Your task to perform on an android device: Search for razer huntsman on walmart, select the first entry, add it to the cart, then select checkout. Image 0: 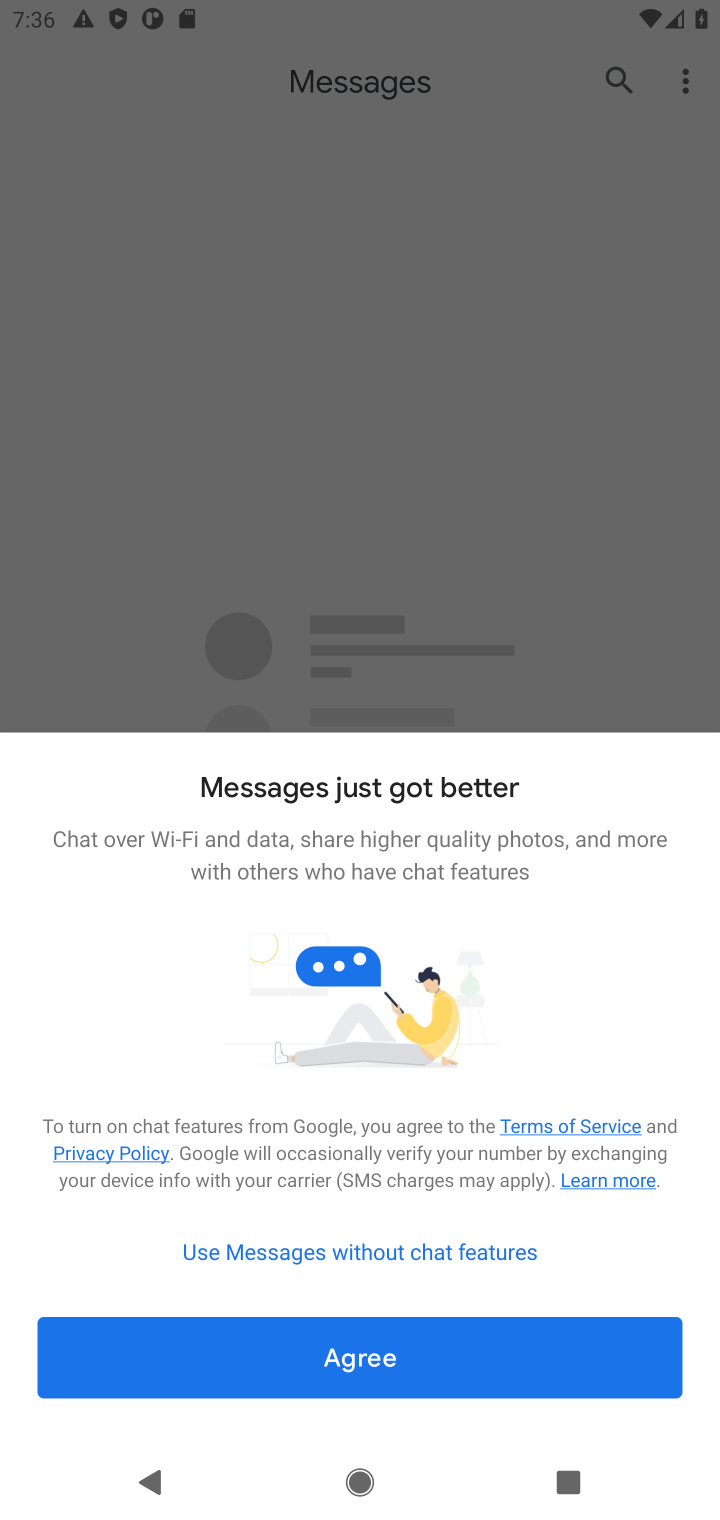
Step 0: press home button
Your task to perform on an android device: Search for razer huntsman on walmart, select the first entry, add it to the cart, then select checkout. Image 1: 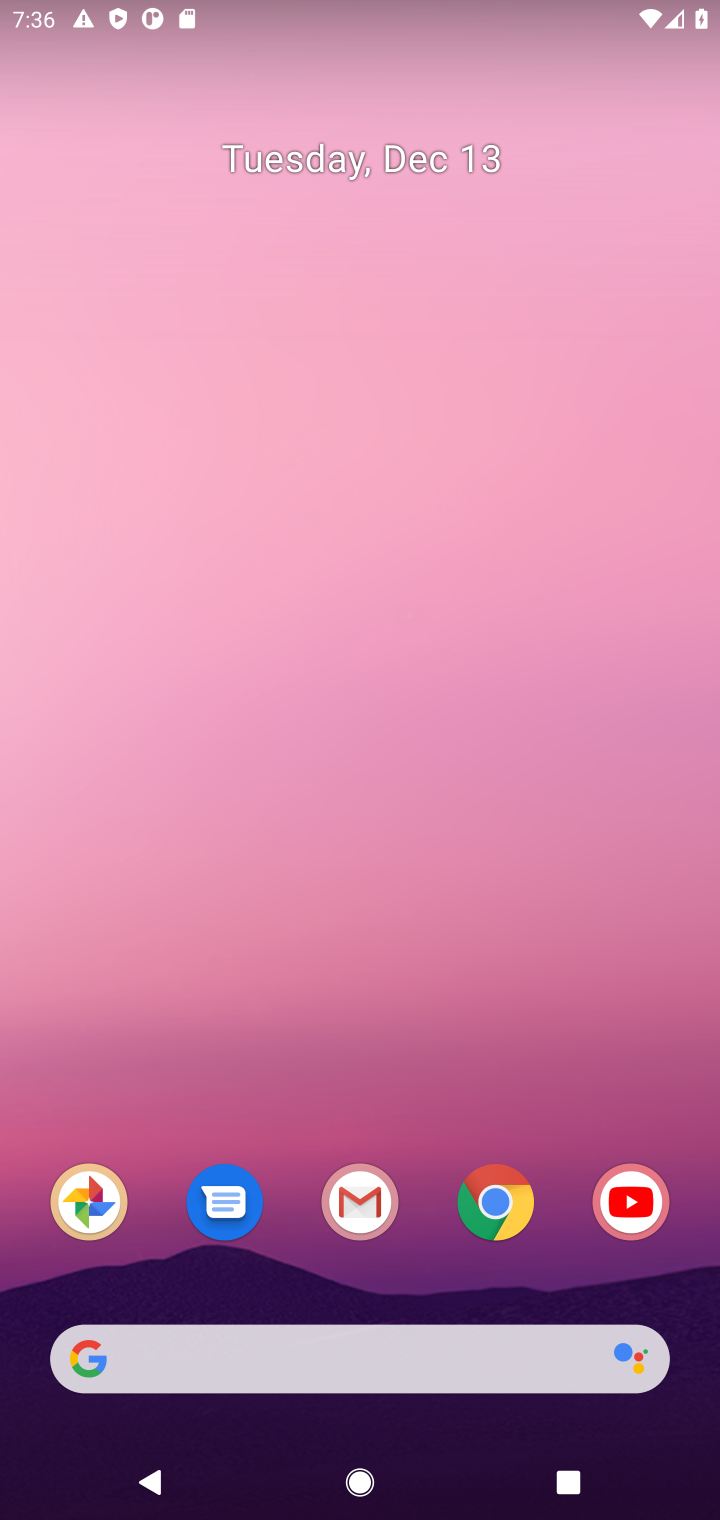
Step 1: click (497, 1222)
Your task to perform on an android device: Search for razer huntsman on walmart, select the first entry, add it to the cart, then select checkout. Image 2: 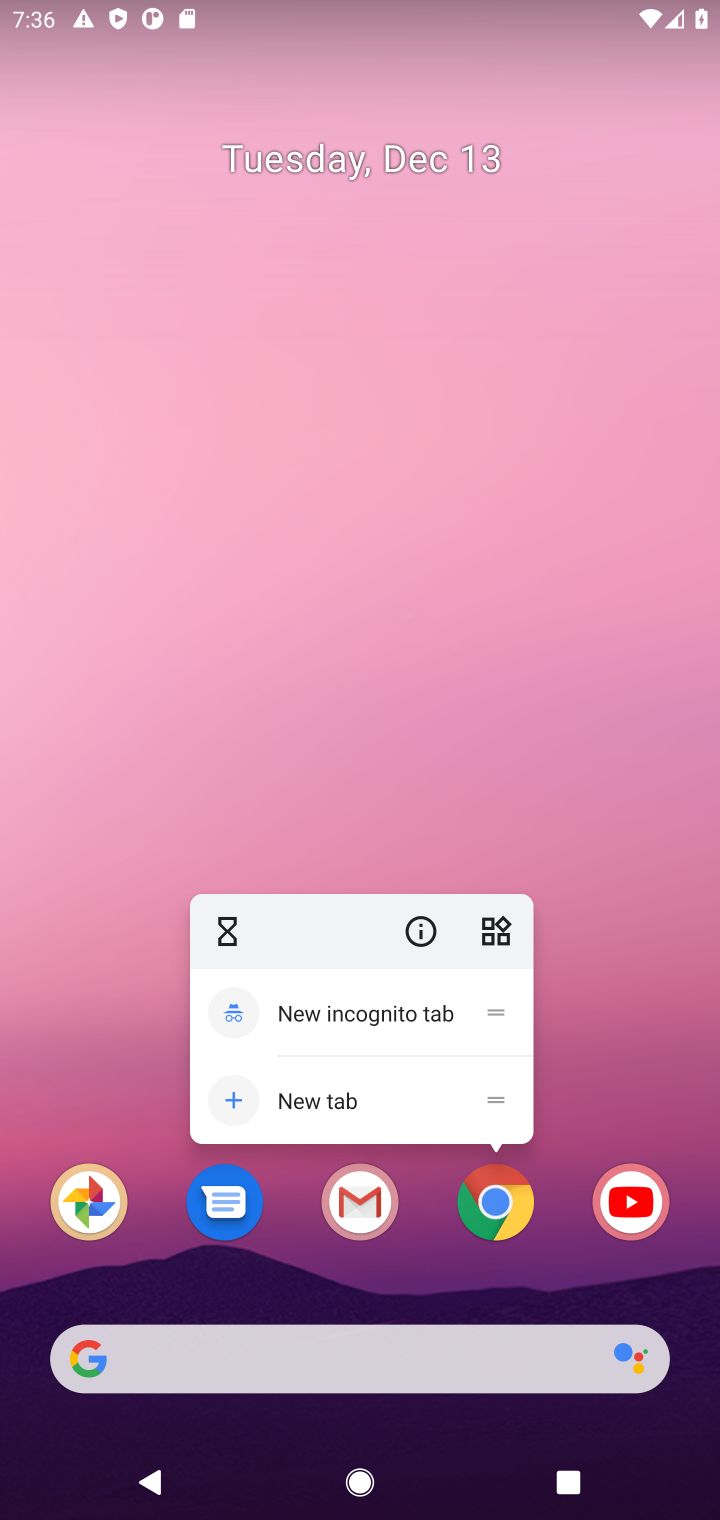
Step 2: click (497, 1222)
Your task to perform on an android device: Search for razer huntsman on walmart, select the first entry, add it to the cart, then select checkout. Image 3: 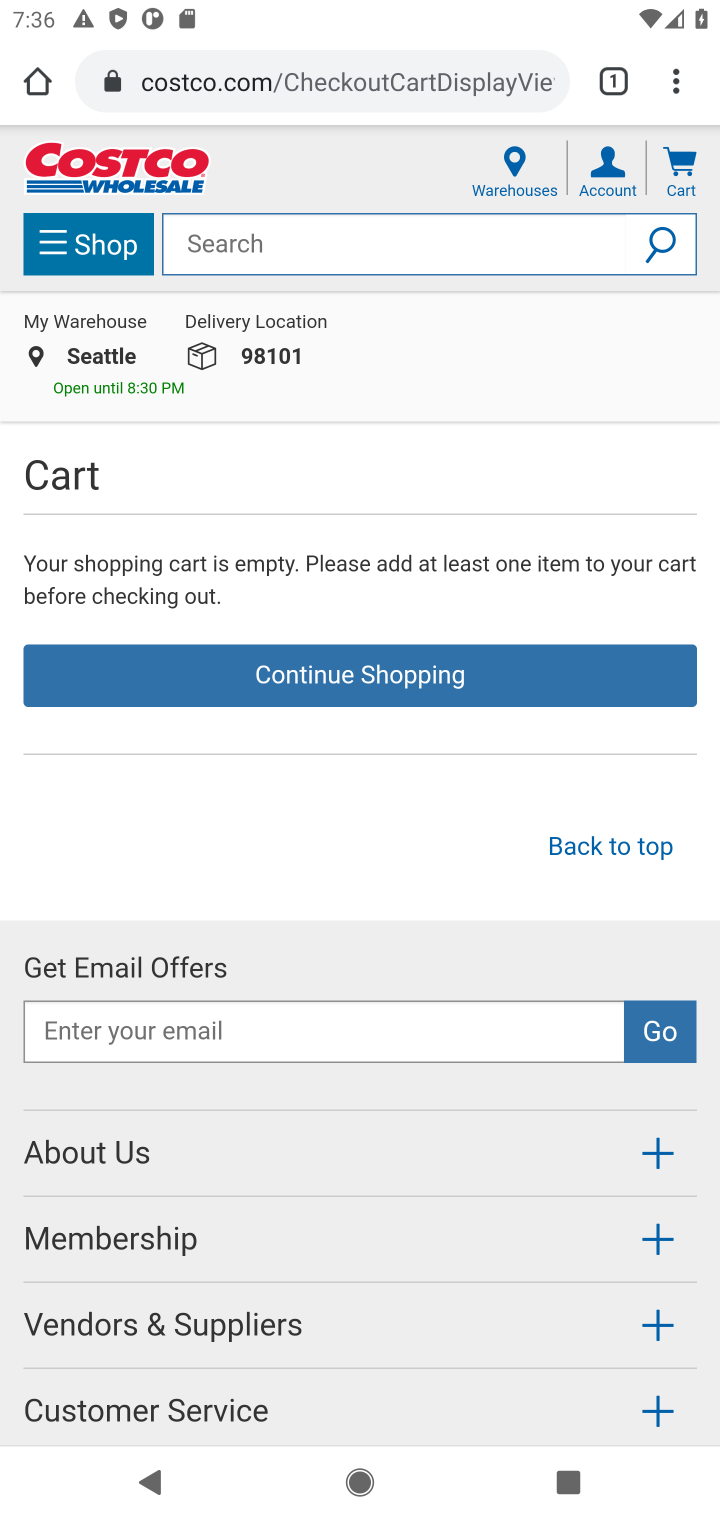
Step 3: click (275, 91)
Your task to perform on an android device: Search for razer huntsman on walmart, select the first entry, add it to the cart, then select checkout. Image 4: 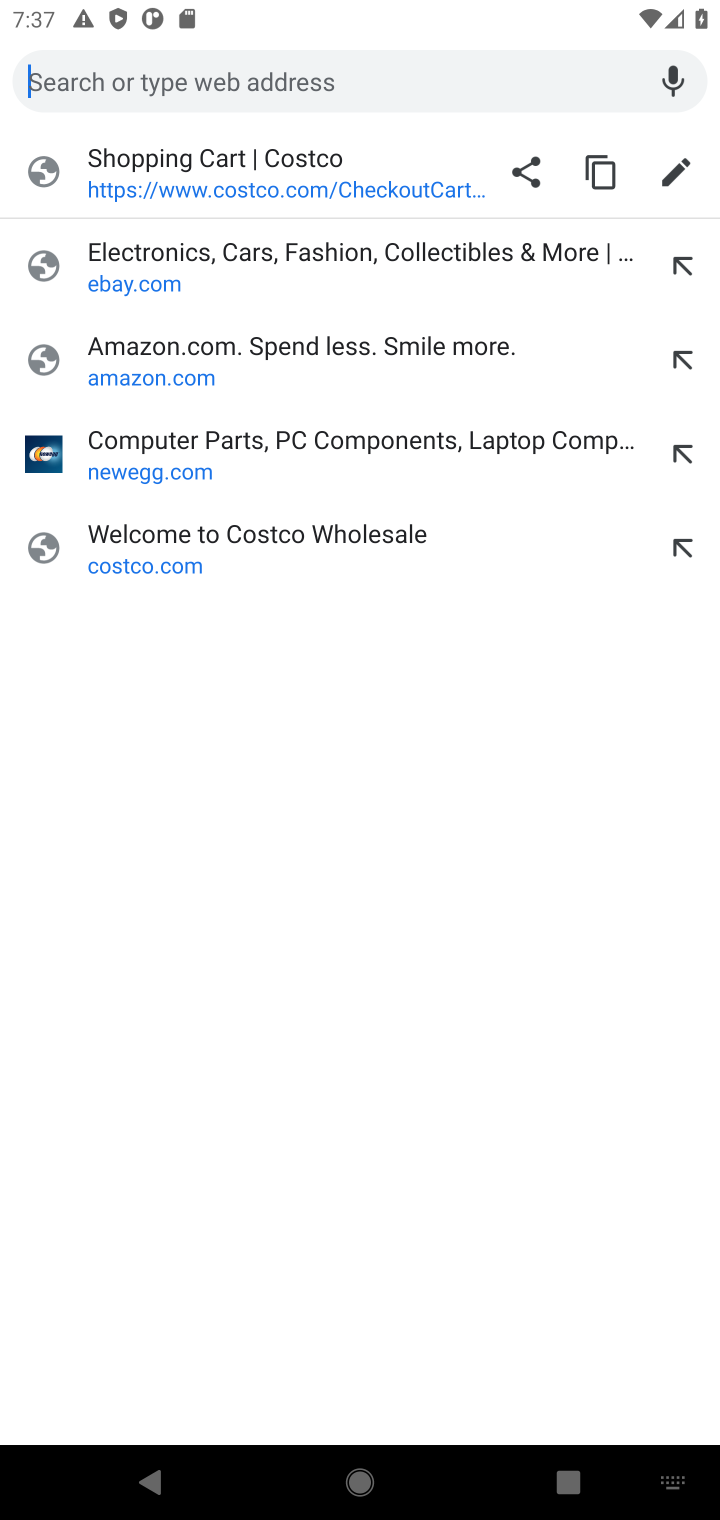
Step 4: type "walmart.com"
Your task to perform on an android device: Search for razer huntsman on walmart, select the first entry, add it to the cart, then select checkout. Image 5: 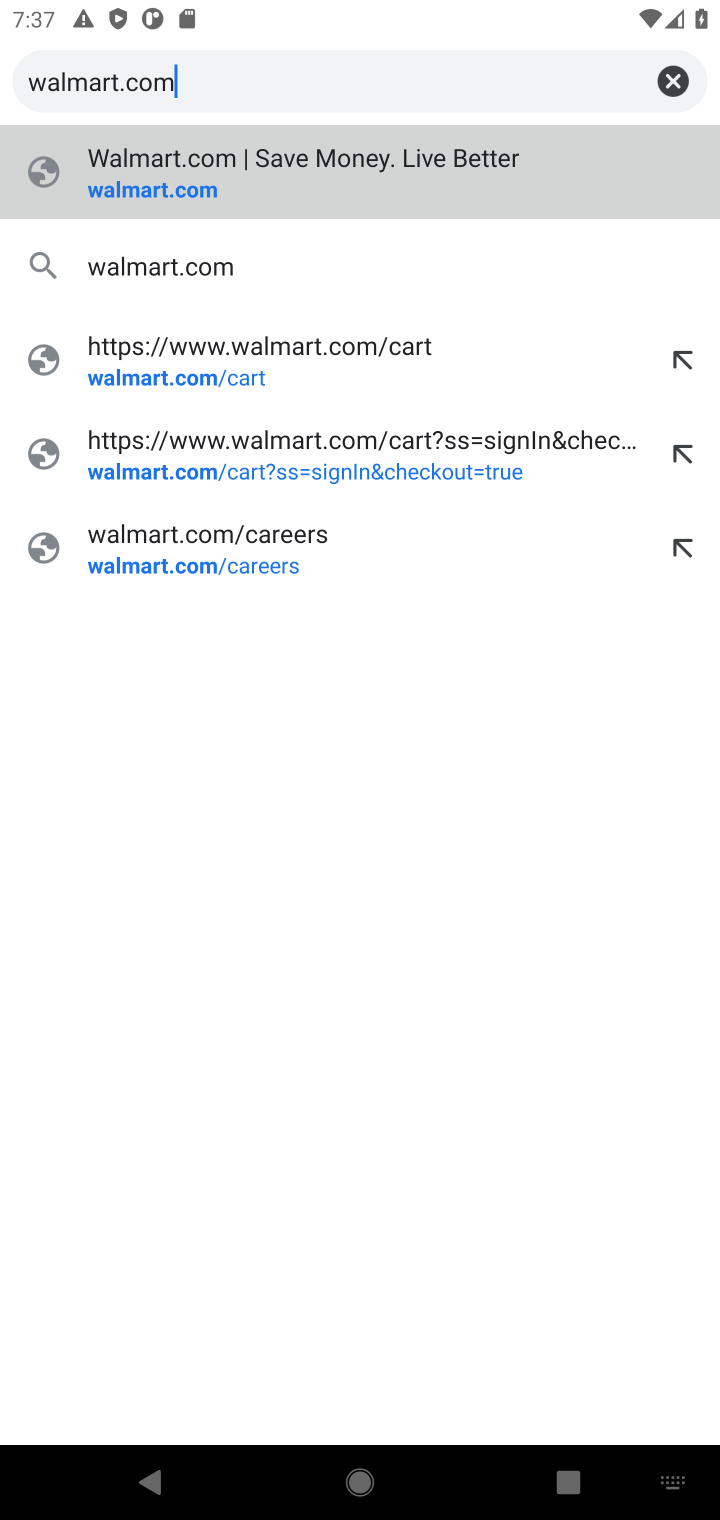
Step 5: click (124, 187)
Your task to perform on an android device: Search for razer huntsman on walmart, select the first entry, add it to the cart, then select checkout. Image 6: 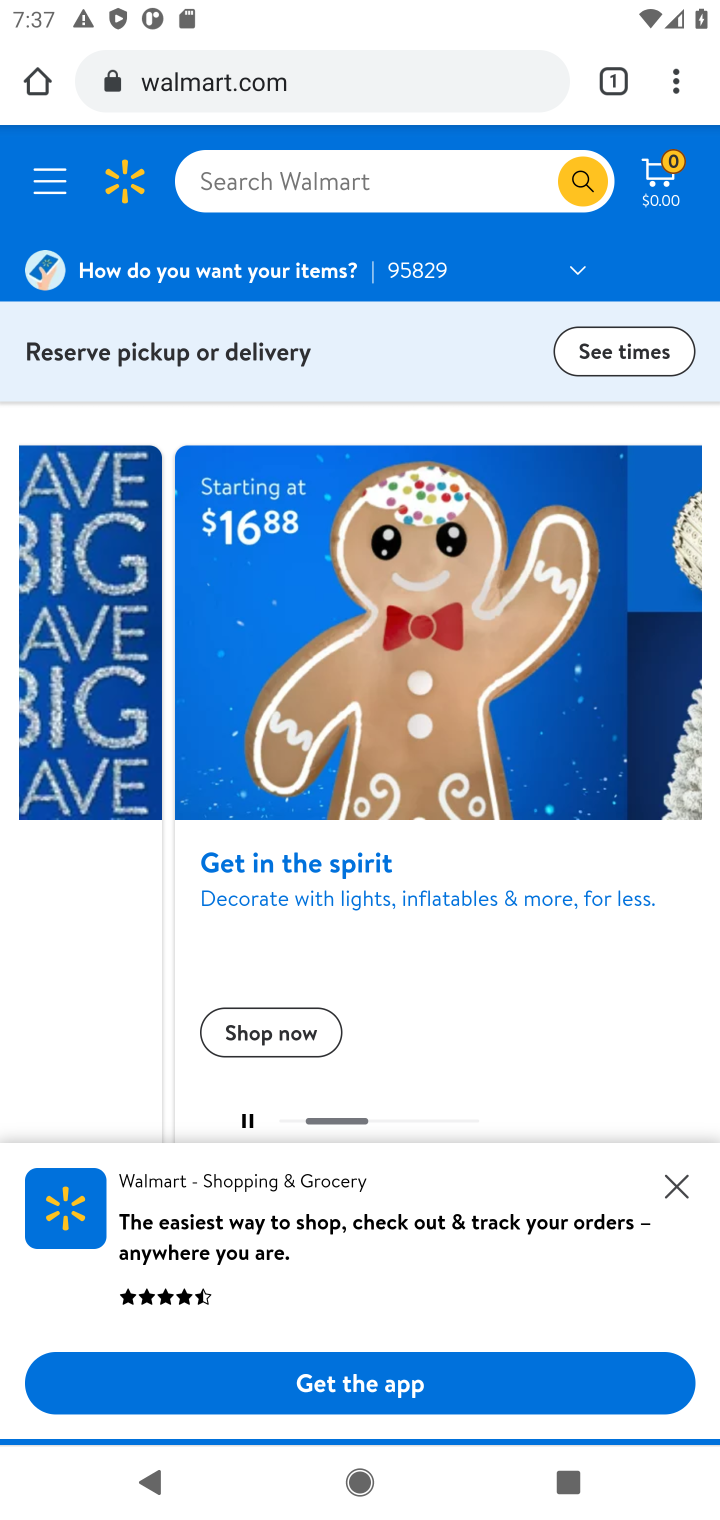
Step 6: click (246, 189)
Your task to perform on an android device: Search for razer huntsman on walmart, select the first entry, add it to the cart, then select checkout. Image 7: 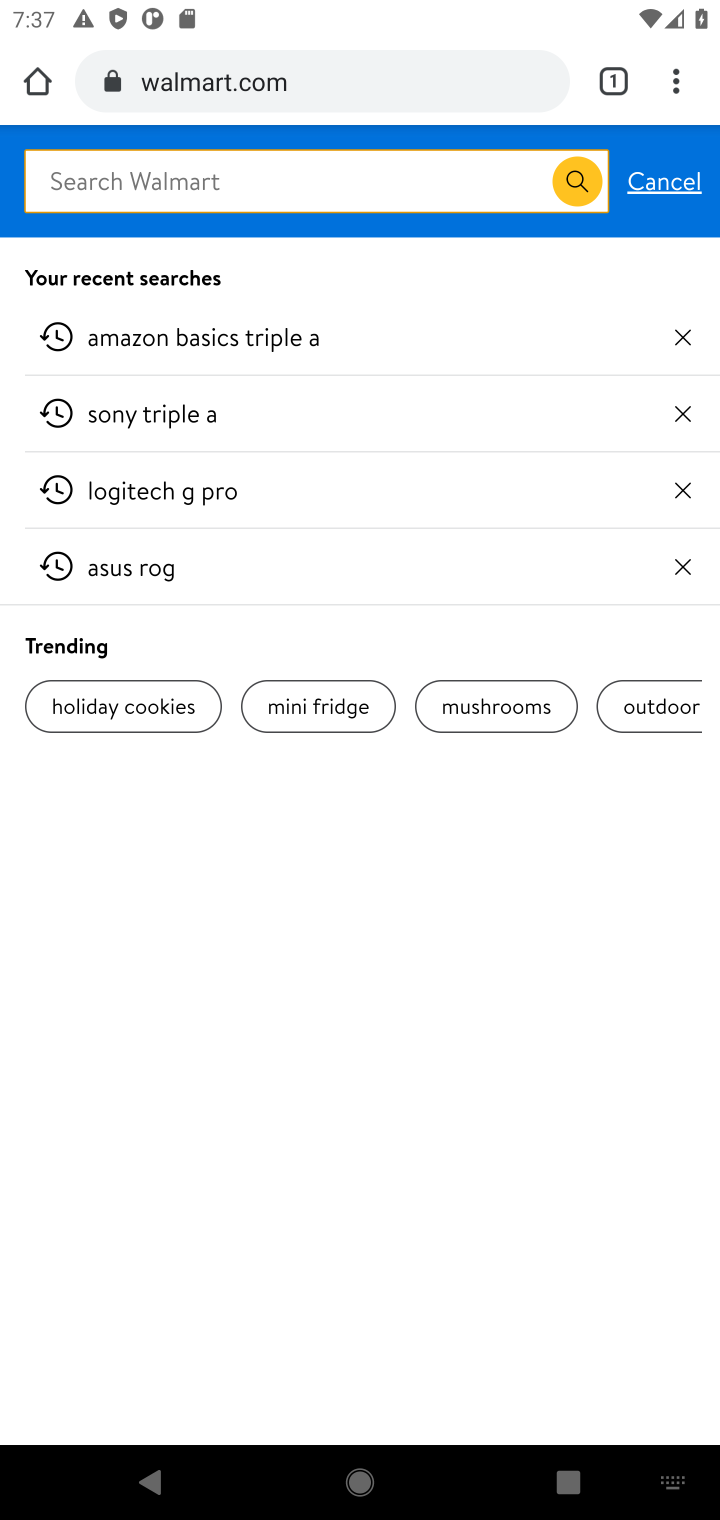
Step 7: type "razer huntsman"
Your task to perform on an android device: Search for razer huntsman on walmart, select the first entry, add it to the cart, then select checkout. Image 8: 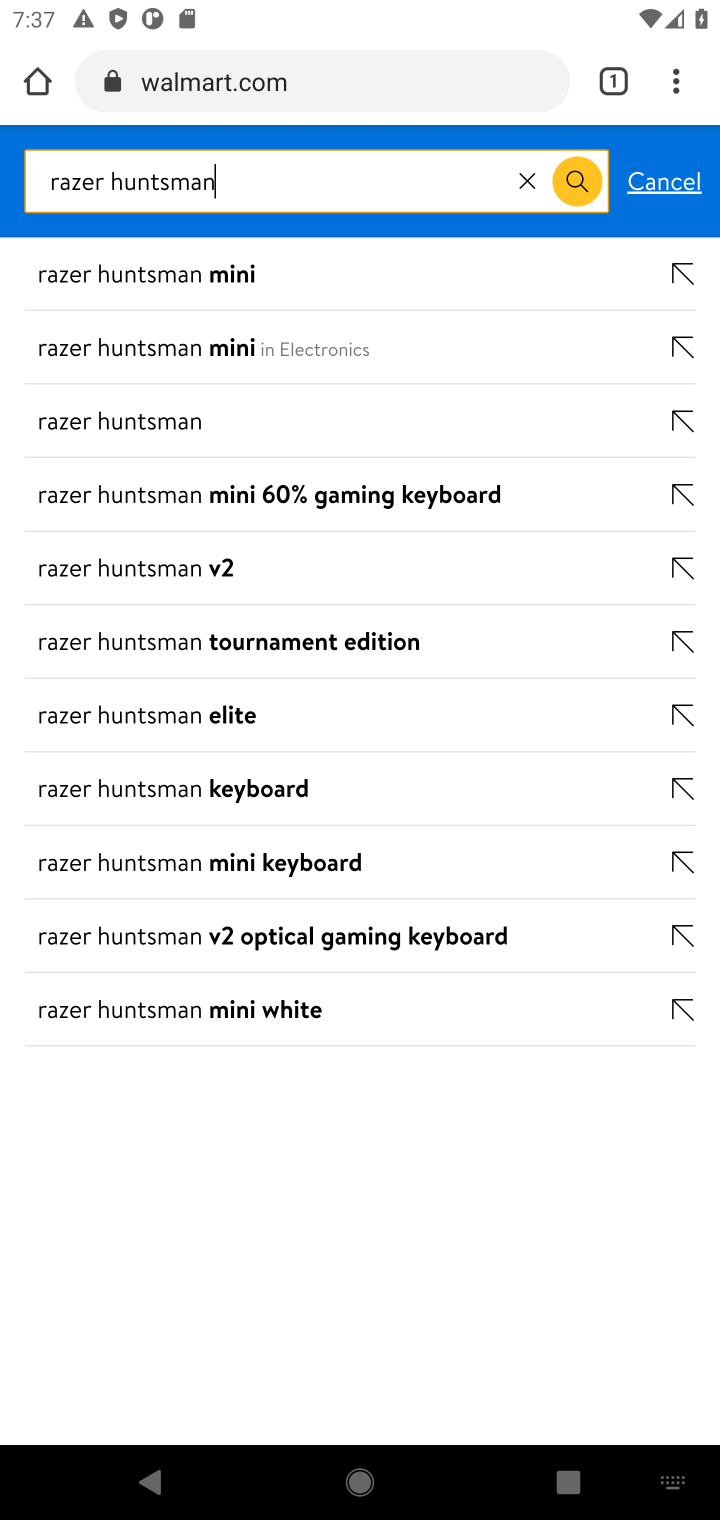
Step 8: click (144, 433)
Your task to perform on an android device: Search for razer huntsman on walmart, select the first entry, add it to the cart, then select checkout. Image 9: 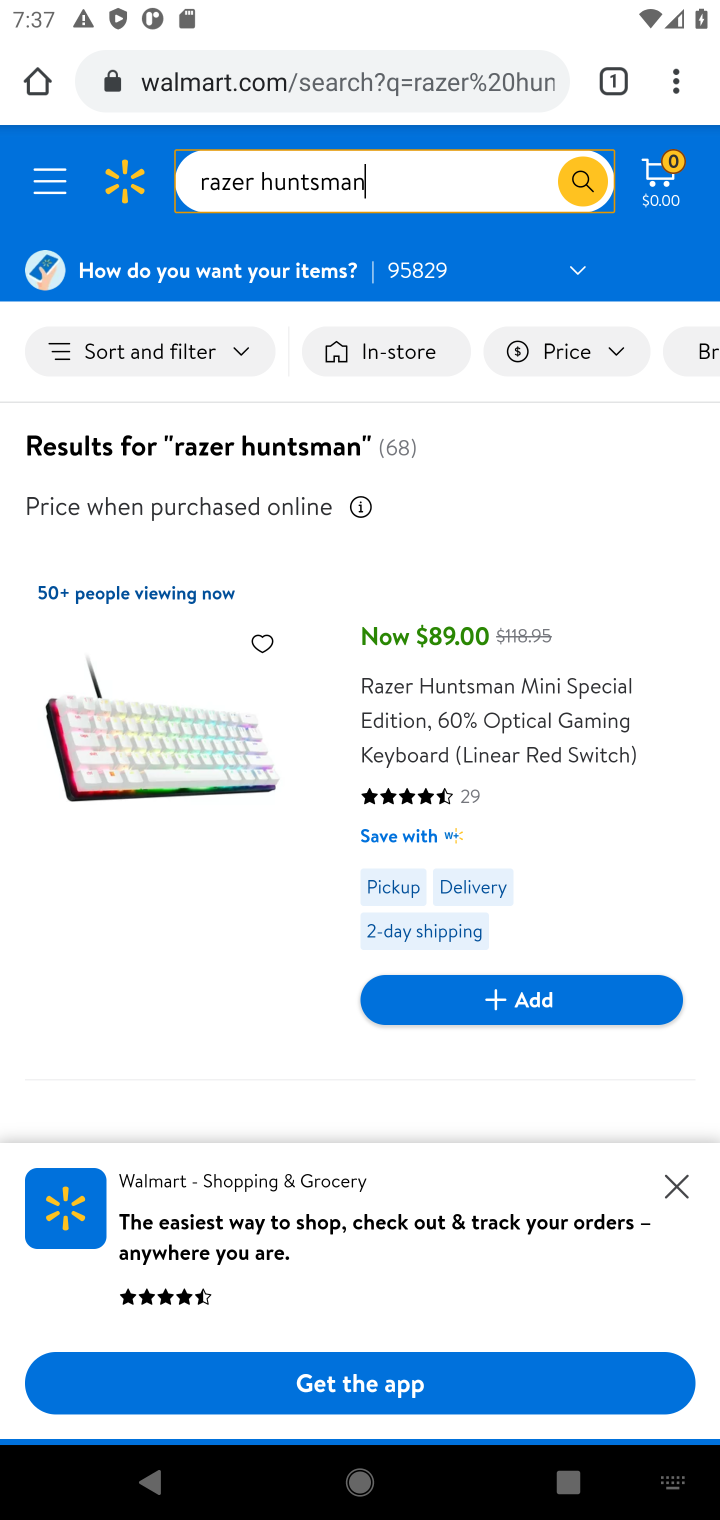
Step 9: click (519, 1014)
Your task to perform on an android device: Search for razer huntsman on walmart, select the first entry, add it to the cart, then select checkout. Image 10: 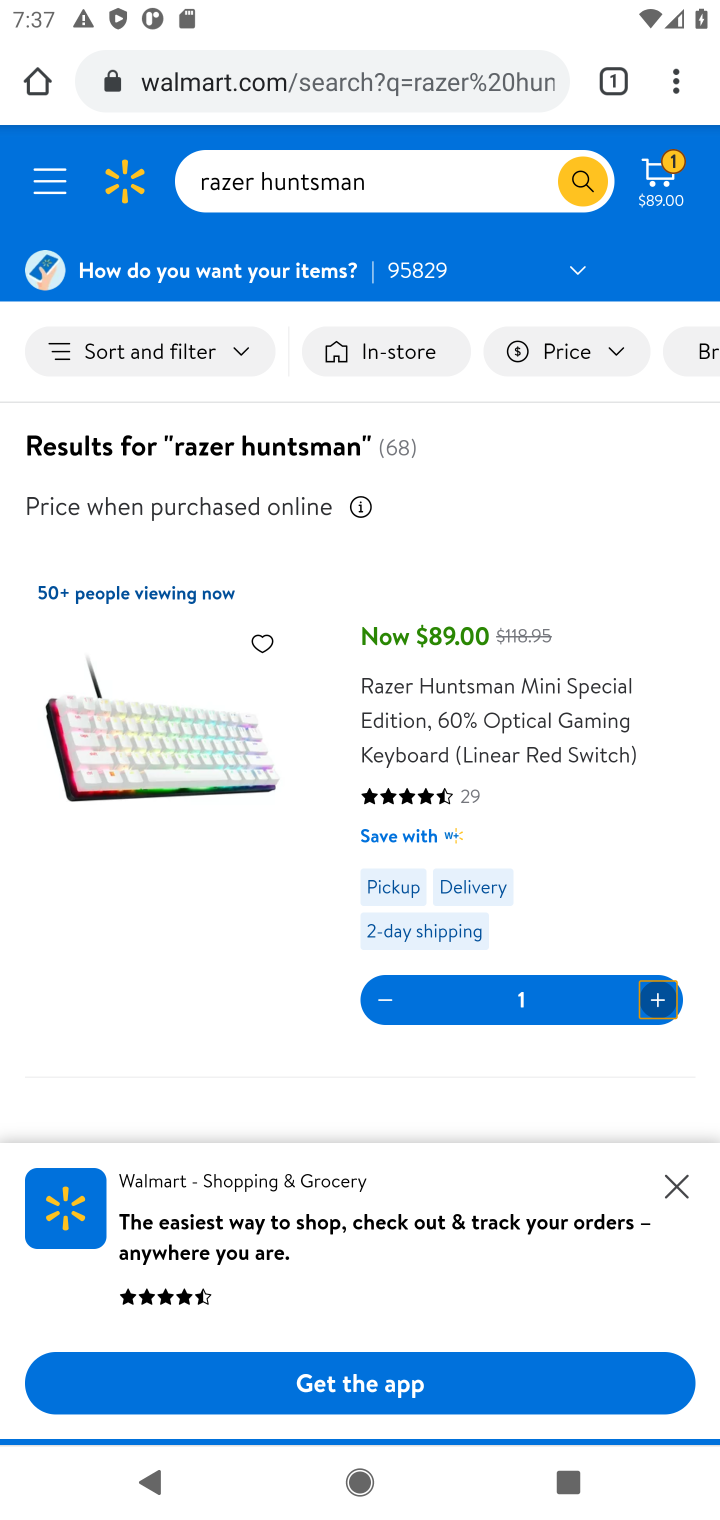
Step 10: click (661, 186)
Your task to perform on an android device: Search for razer huntsman on walmart, select the first entry, add it to the cart, then select checkout. Image 11: 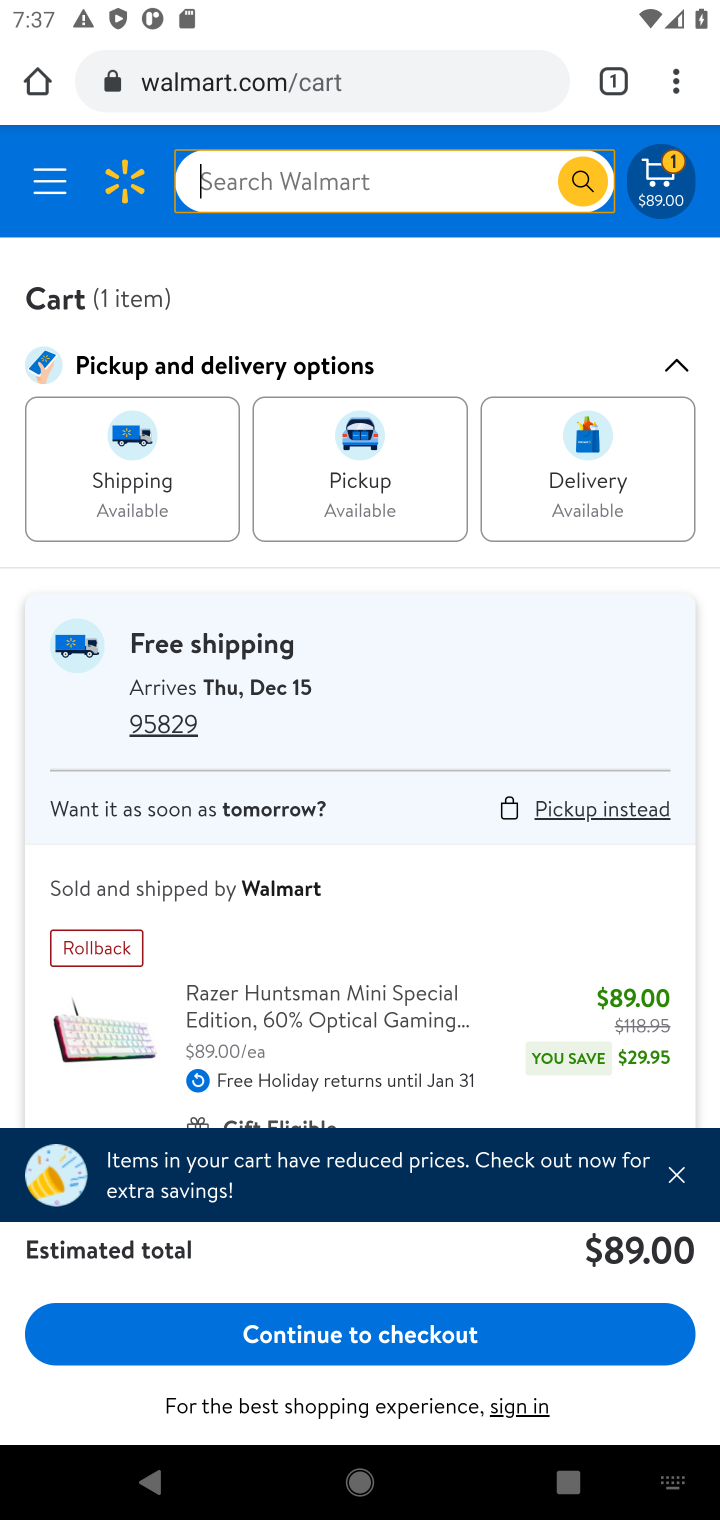
Step 11: click (360, 1340)
Your task to perform on an android device: Search for razer huntsman on walmart, select the first entry, add it to the cart, then select checkout. Image 12: 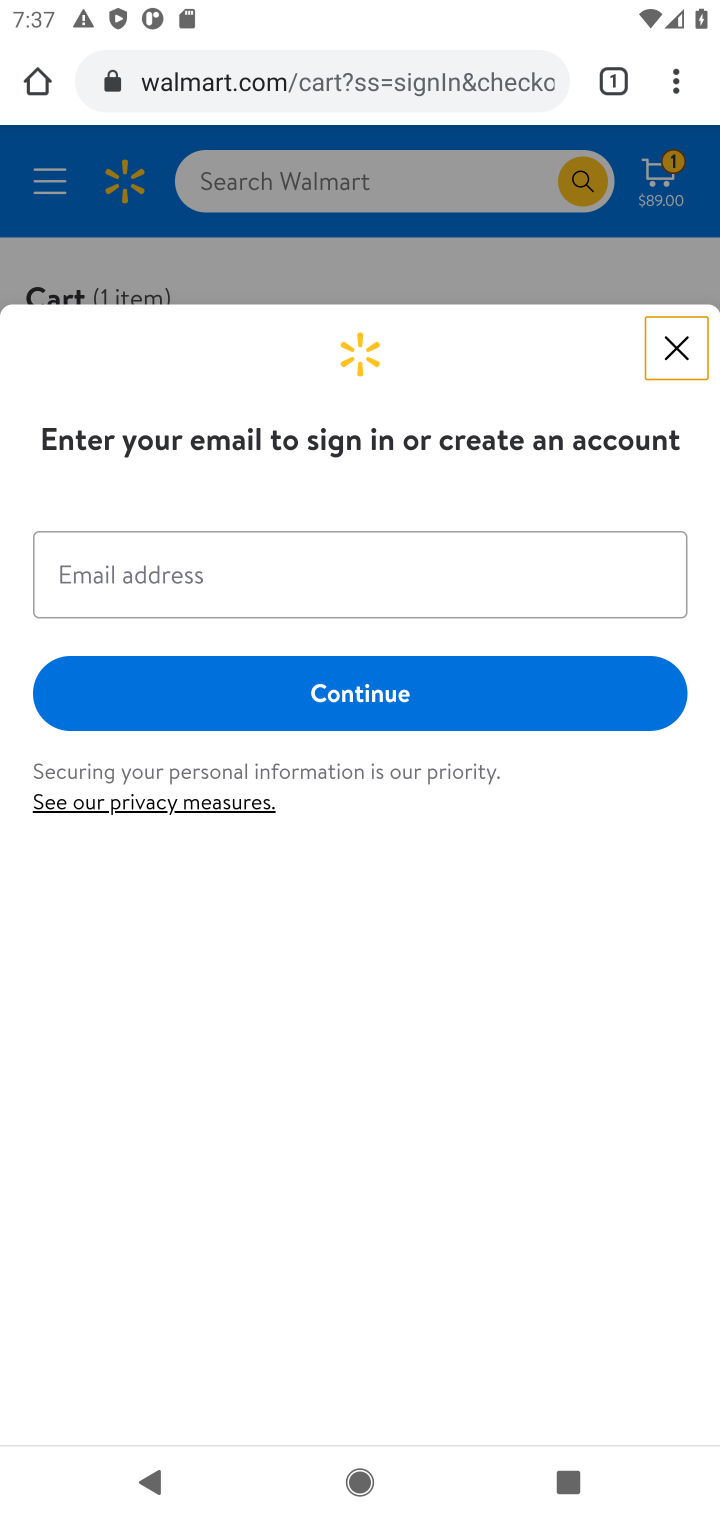
Step 12: task complete